Your task to perform on an android device: change the clock display to analog Image 0: 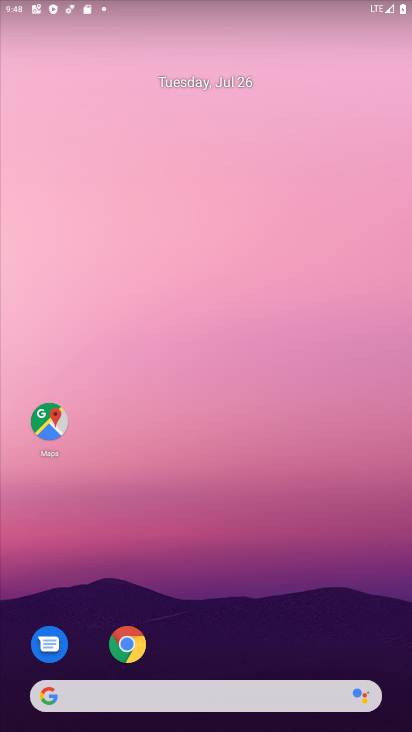
Step 0: drag from (231, 594) to (208, 2)
Your task to perform on an android device: change the clock display to analog Image 1: 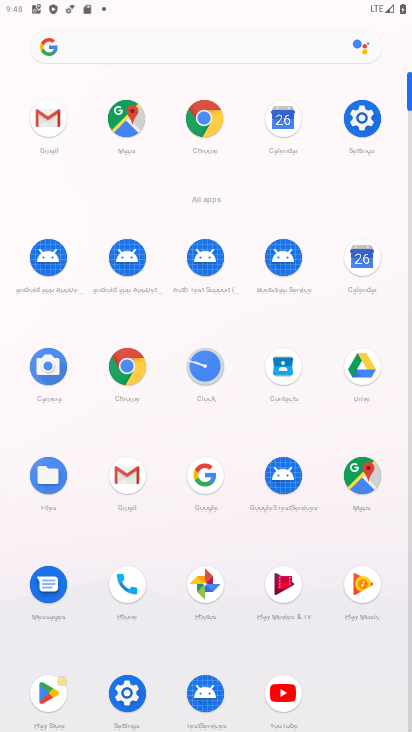
Step 1: click (198, 367)
Your task to perform on an android device: change the clock display to analog Image 2: 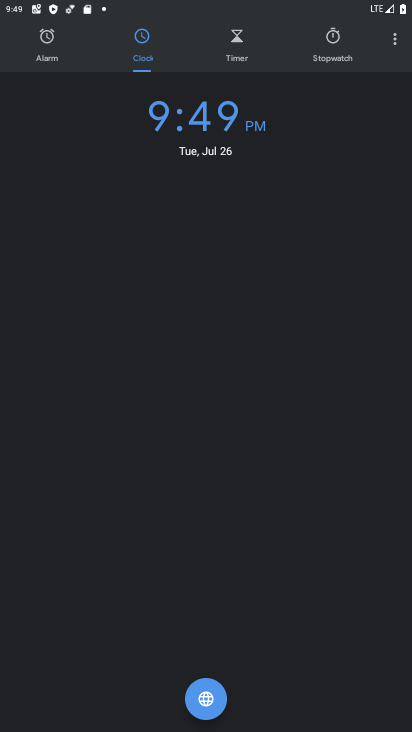
Step 2: click (387, 44)
Your task to perform on an android device: change the clock display to analog Image 3: 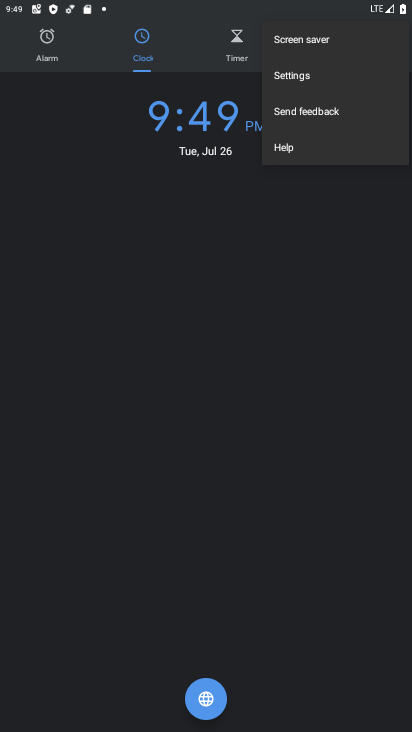
Step 3: click (337, 82)
Your task to perform on an android device: change the clock display to analog Image 4: 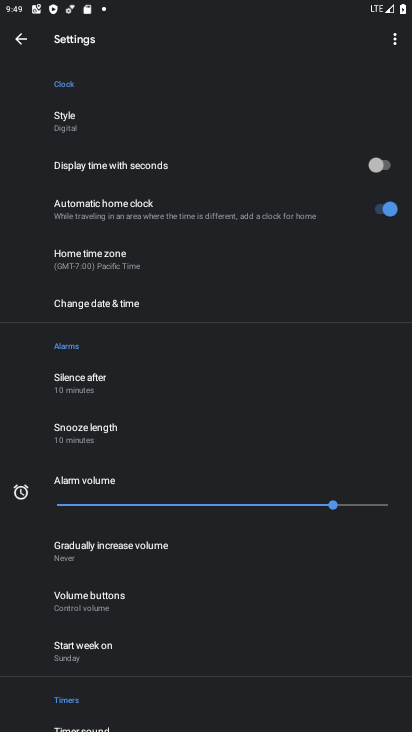
Step 4: click (78, 130)
Your task to perform on an android device: change the clock display to analog Image 5: 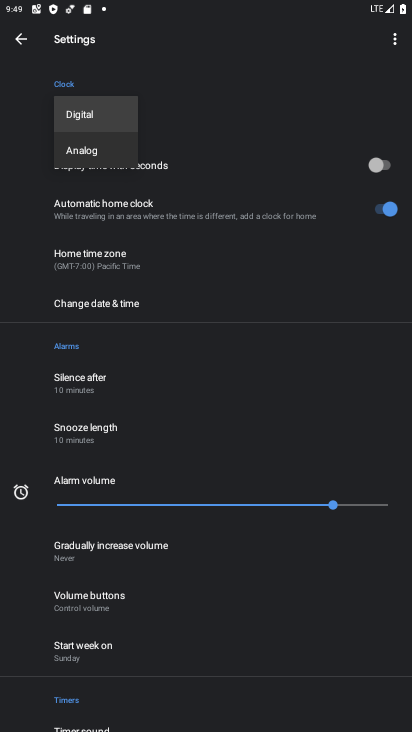
Step 5: click (78, 157)
Your task to perform on an android device: change the clock display to analog Image 6: 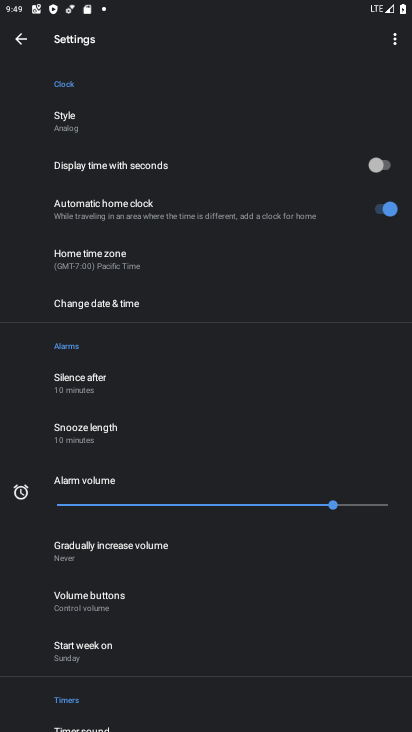
Step 6: task complete